Your task to perform on an android device: open app "Google Play services" (install if not already installed) Image 0: 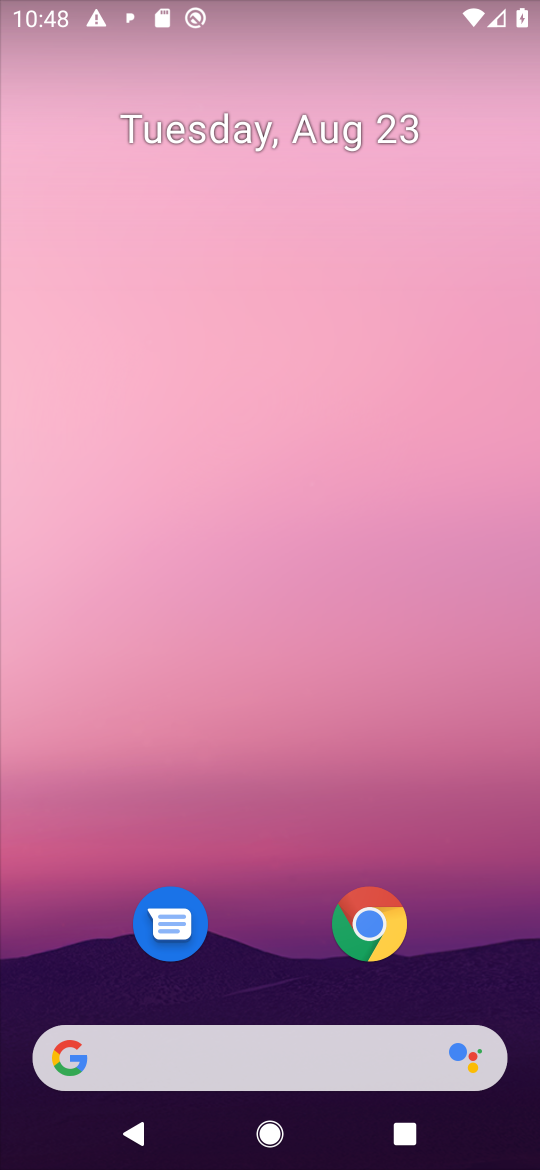
Step 0: press home button
Your task to perform on an android device: open app "Google Play services" (install if not already installed) Image 1: 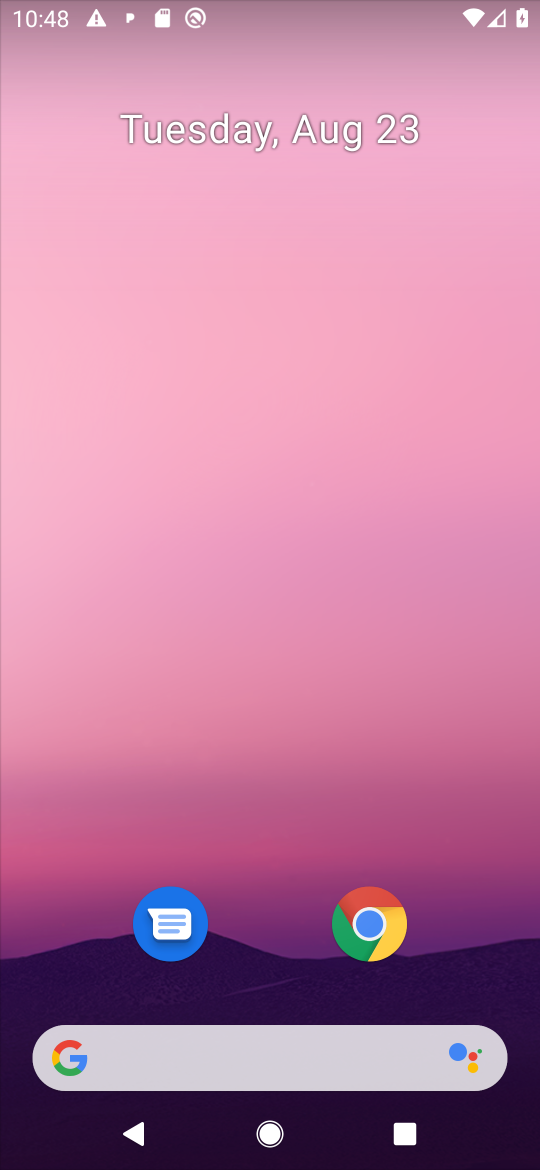
Step 1: drag from (469, 924) to (434, 81)
Your task to perform on an android device: open app "Google Play services" (install if not already installed) Image 2: 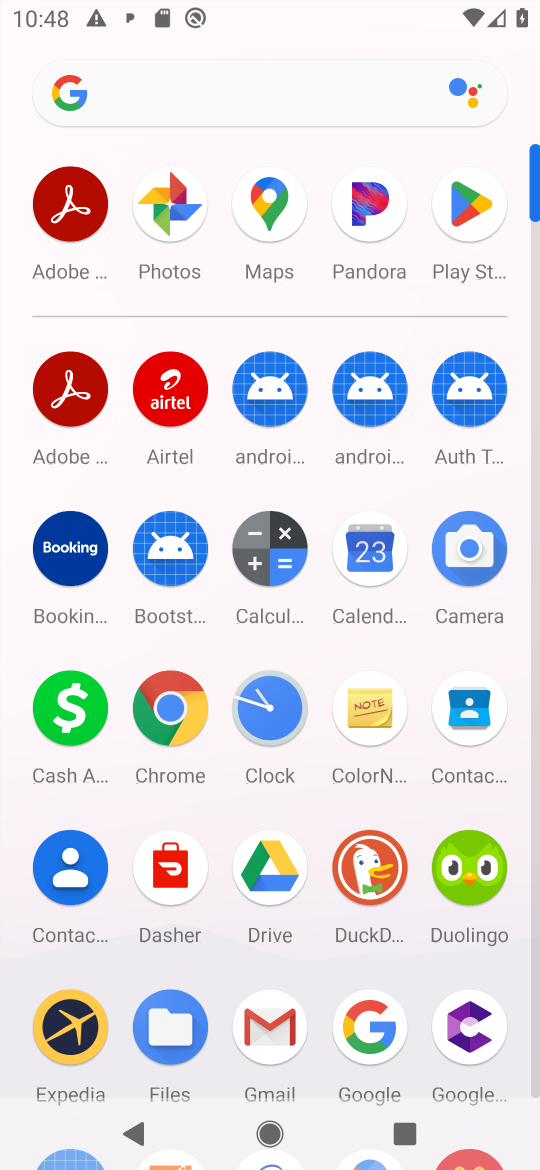
Step 2: click (465, 195)
Your task to perform on an android device: open app "Google Play services" (install if not already installed) Image 3: 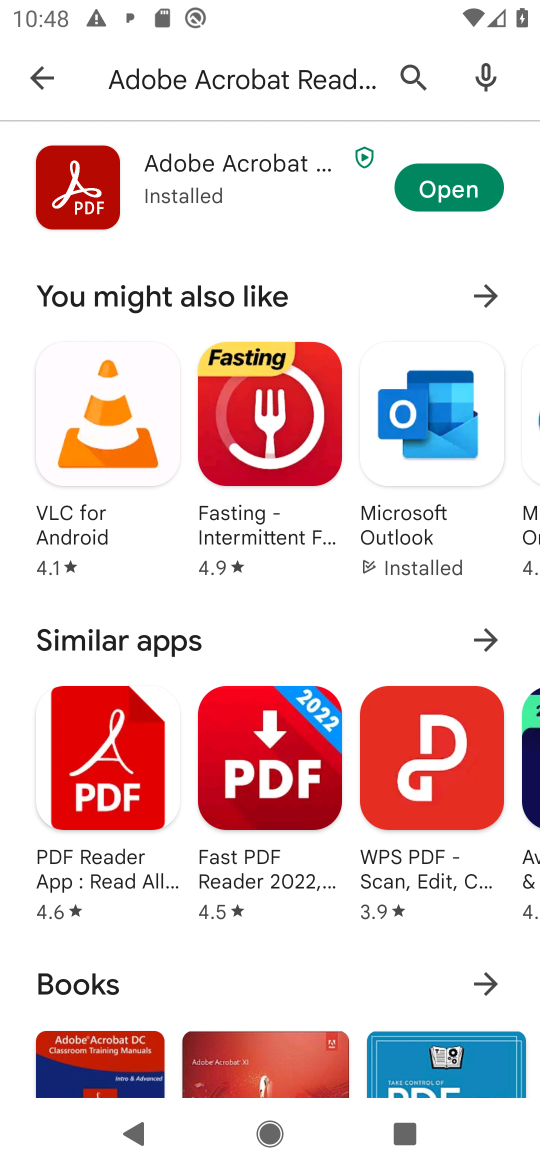
Step 3: press back button
Your task to perform on an android device: open app "Google Play services" (install if not already installed) Image 4: 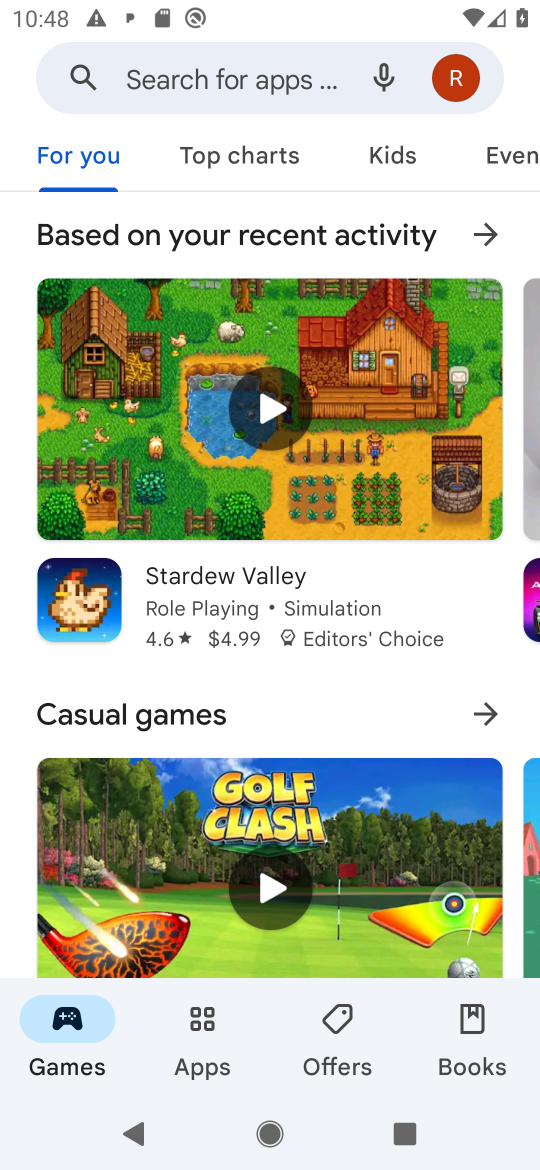
Step 4: click (217, 75)
Your task to perform on an android device: open app "Google Play services" (install if not already installed) Image 5: 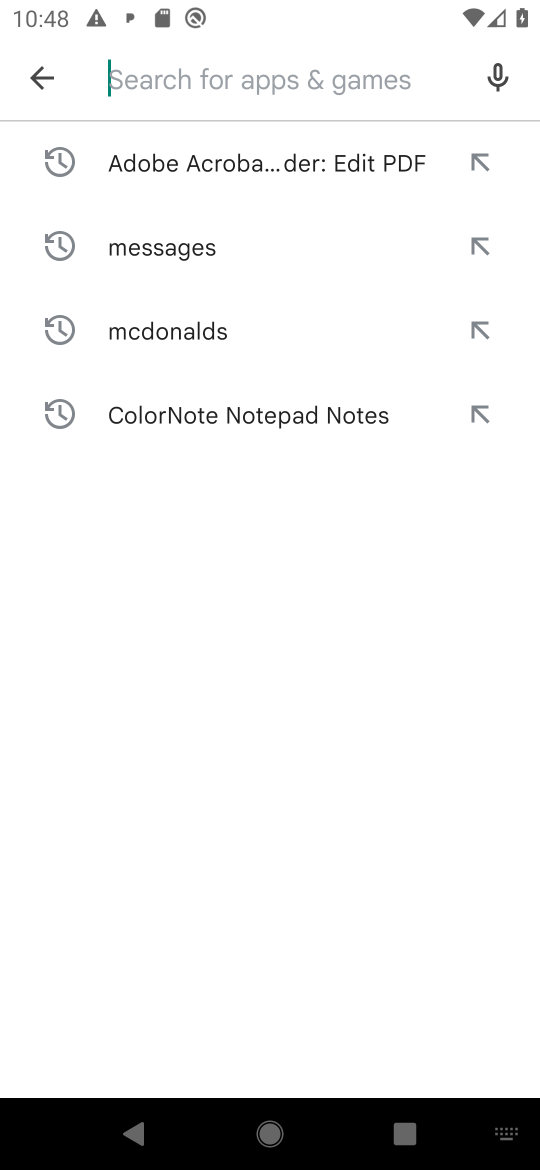
Step 5: type "Google Play services"
Your task to perform on an android device: open app "Google Play services" (install if not already installed) Image 6: 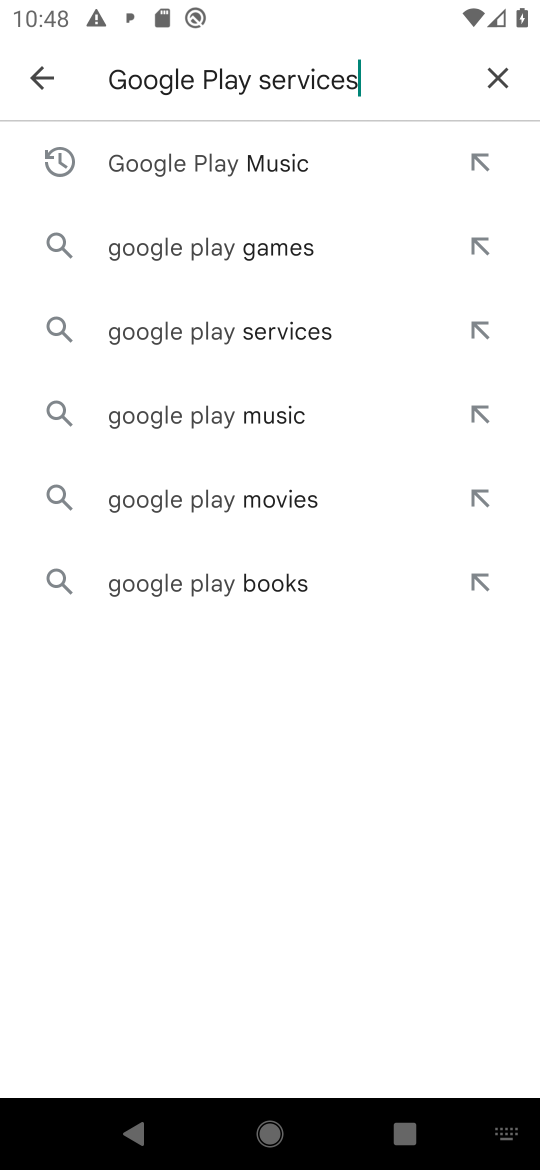
Step 6: press enter
Your task to perform on an android device: open app "Google Play services" (install if not already installed) Image 7: 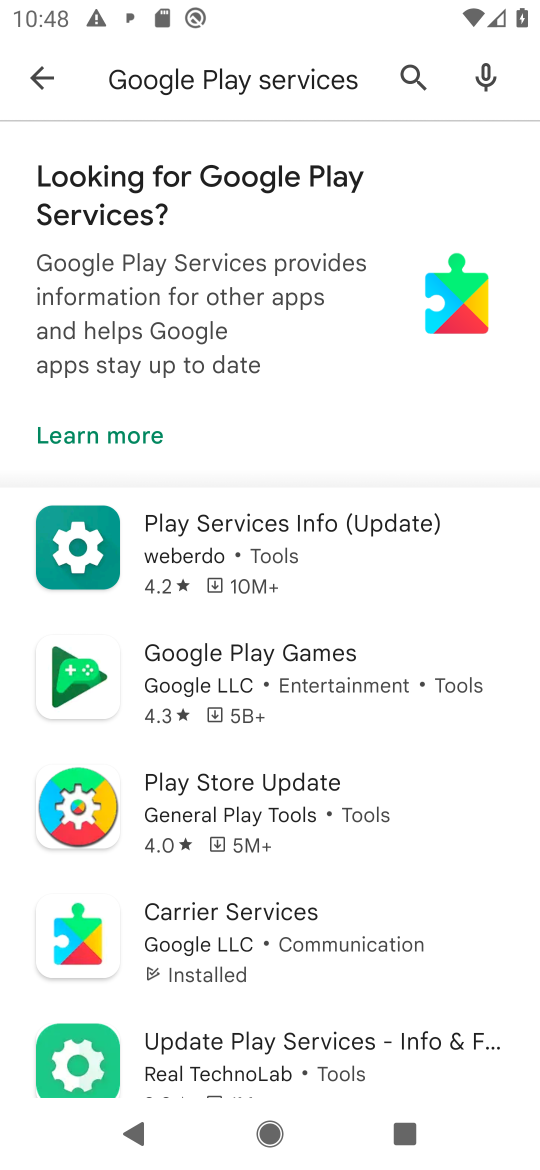
Step 7: task complete